Your task to perform on an android device: allow notifications from all sites in the chrome app Image 0: 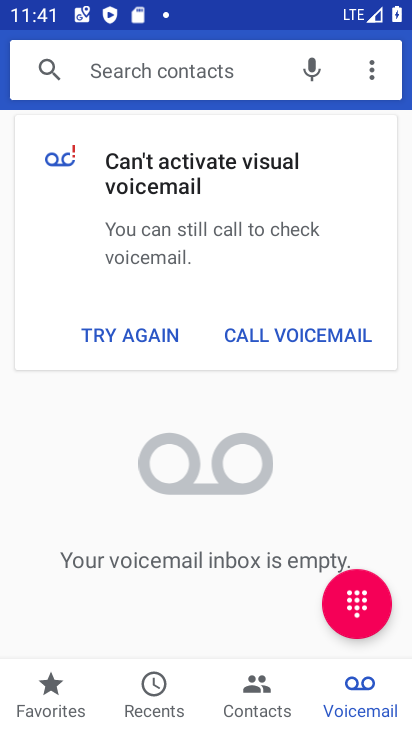
Step 0: press home button
Your task to perform on an android device: allow notifications from all sites in the chrome app Image 1: 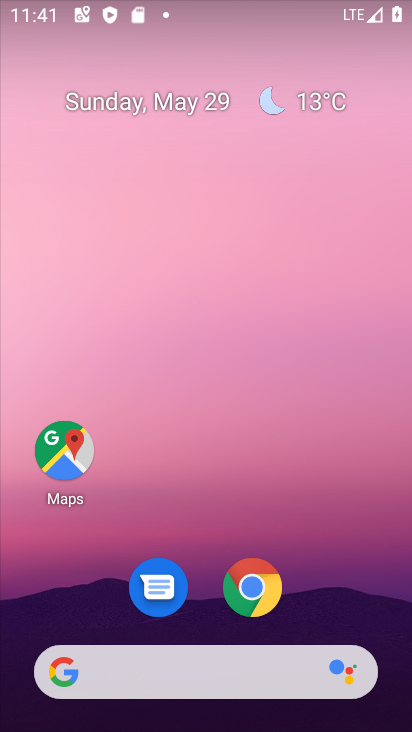
Step 1: drag from (319, 476) to (305, 0)
Your task to perform on an android device: allow notifications from all sites in the chrome app Image 2: 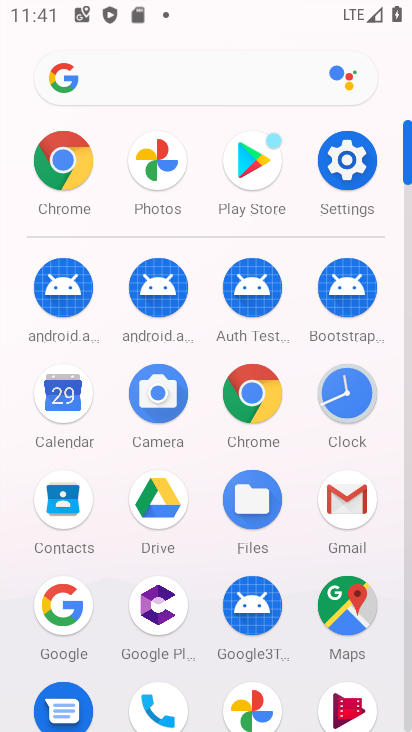
Step 2: click (248, 398)
Your task to perform on an android device: allow notifications from all sites in the chrome app Image 3: 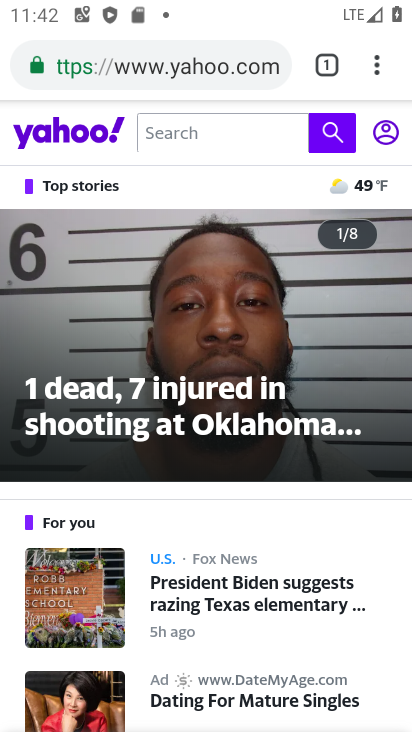
Step 3: drag from (382, 59) to (207, 636)
Your task to perform on an android device: allow notifications from all sites in the chrome app Image 4: 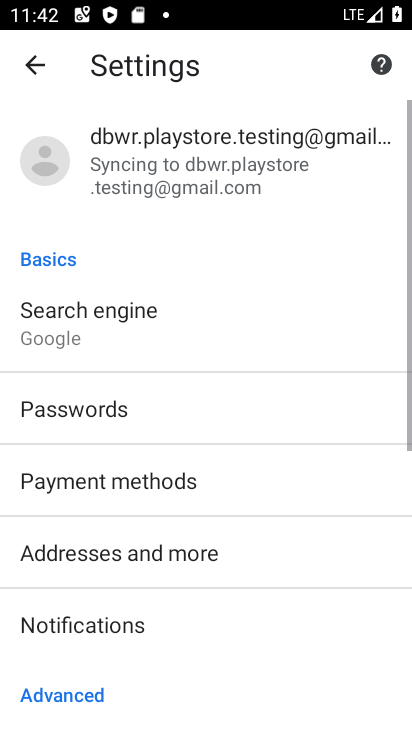
Step 4: drag from (206, 592) to (225, 107)
Your task to perform on an android device: allow notifications from all sites in the chrome app Image 5: 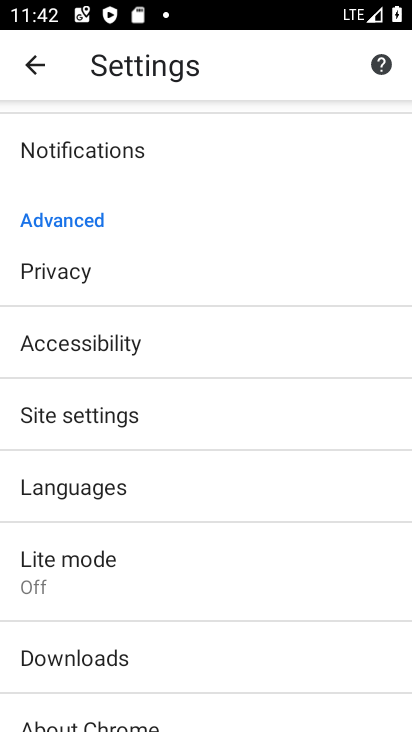
Step 5: click (135, 421)
Your task to perform on an android device: allow notifications from all sites in the chrome app Image 6: 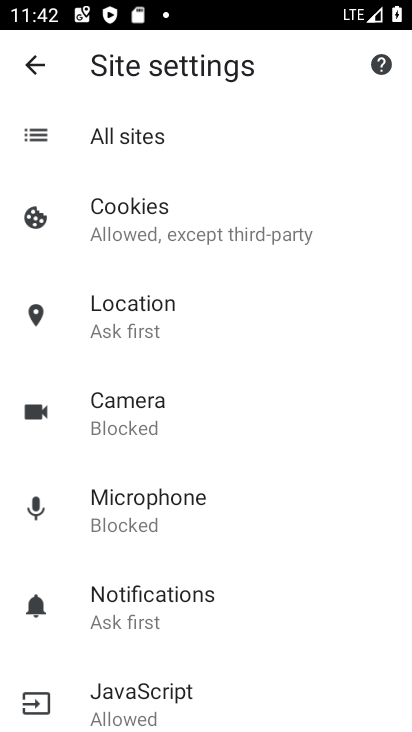
Step 6: click (189, 127)
Your task to perform on an android device: allow notifications from all sites in the chrome app Image 7: 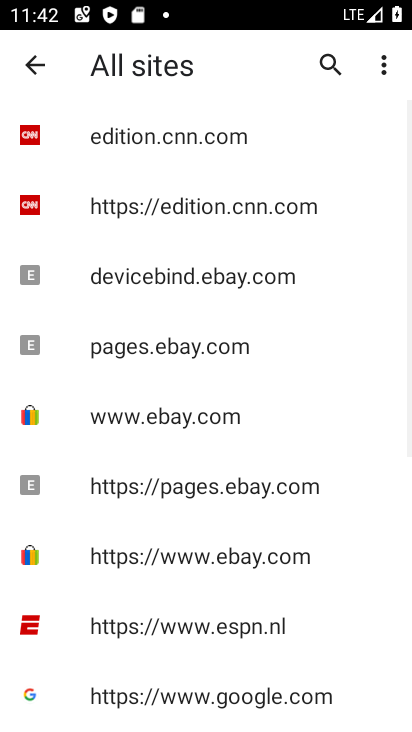
Step 7: drag from (297, 396) to (274, 715)
Your task to perform on an android device: allow notifications from all sites in the chrome app Image 8: 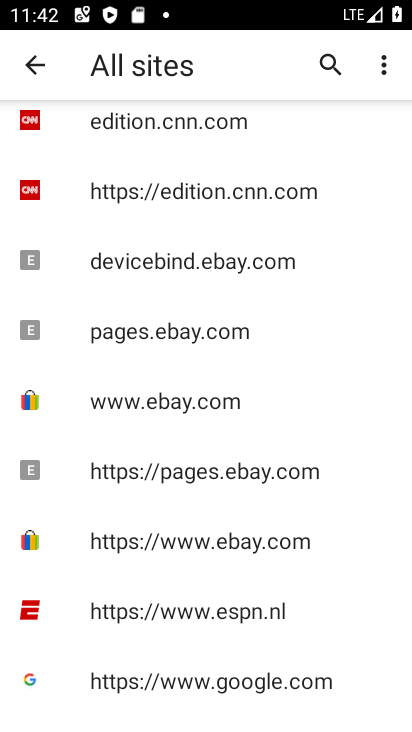
Step 8: click (35, 73)
Your task to perform on an android device: allow notifications from all sites in the chrome app Image 9: 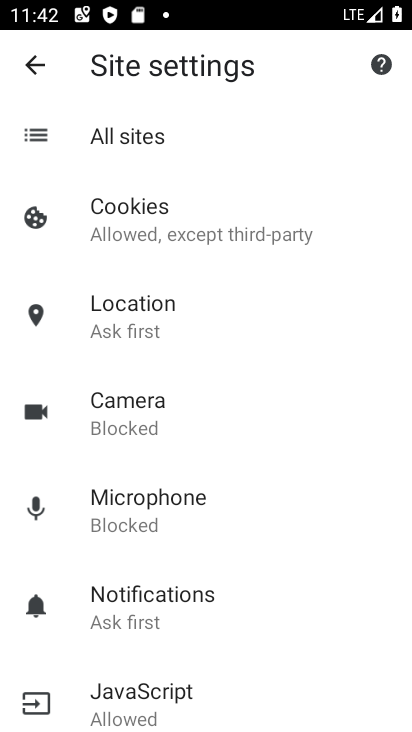
Step 9: click (136, 608)
Your task to perform on an android device: allow notifications from all sites in the chrome app Image 10: 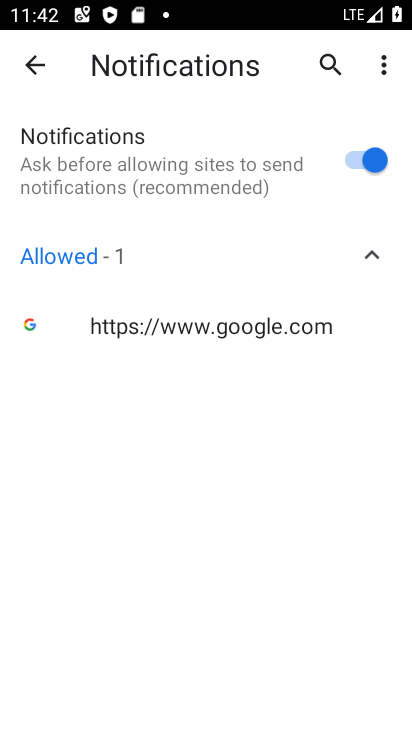
Step 10: task complete